Your task to perform on an android device: delete the emails in spam in the gmail app Image 0: 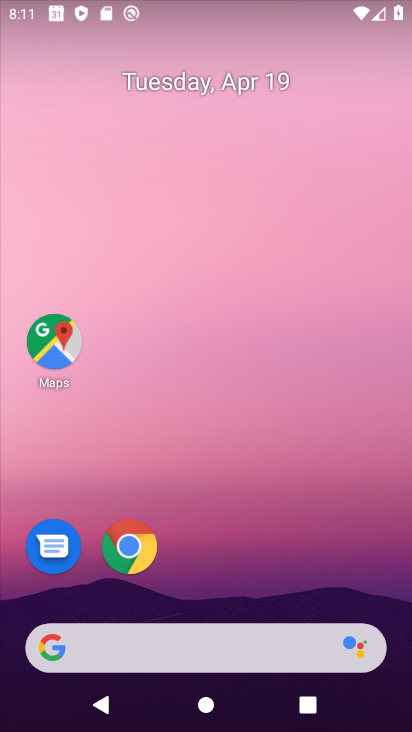
Step 0: drag from (81, 538) to (356, 153)
Your task to perform on an android device: delete the emails in spam in the gmail app Image 1: 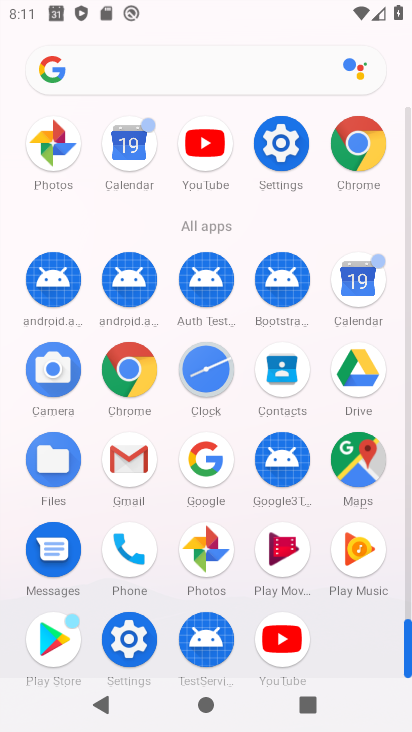
Step 1: click (134, 469)
Your task to perform on an android device: delete the emails in spam in the gmail app Image 2: 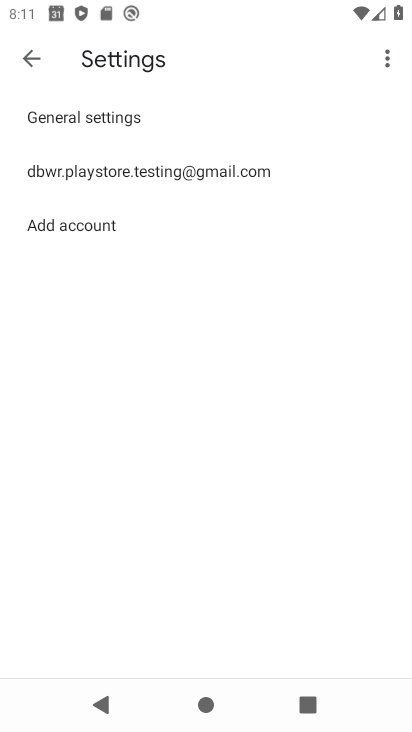
Step 2: click (37, 56)
Your task to perform on an android device: delete the emails in spam in the gmail app Image 3: 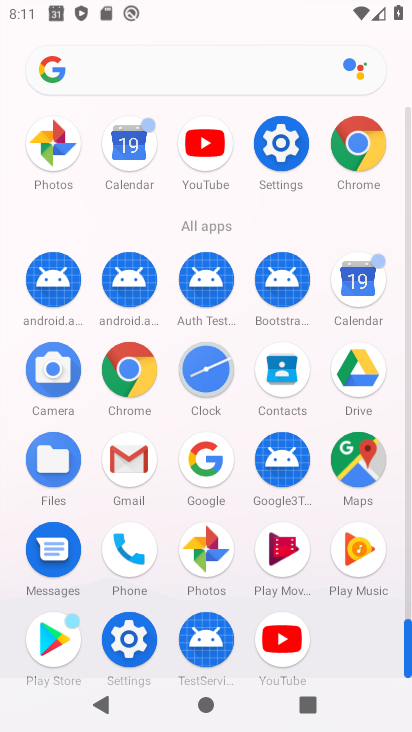
Step 3: click (124, 464)
Your task to perform on an android device: delete the emails in spam in the gmail app Image 4: 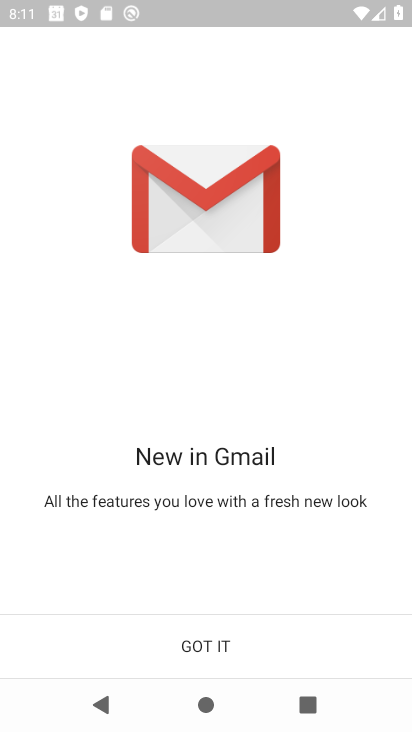
Step 4: click (243, 628)
Your task to perform on an android device: delete the emails in spam in the gmail app Image 5: 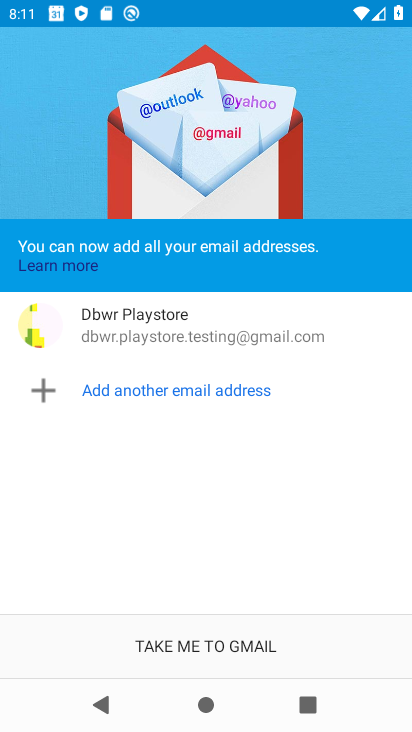
Step 5: click (236, 635)
Your task to perform on an android device: delete the emails in spam in the gmail app Image 6: 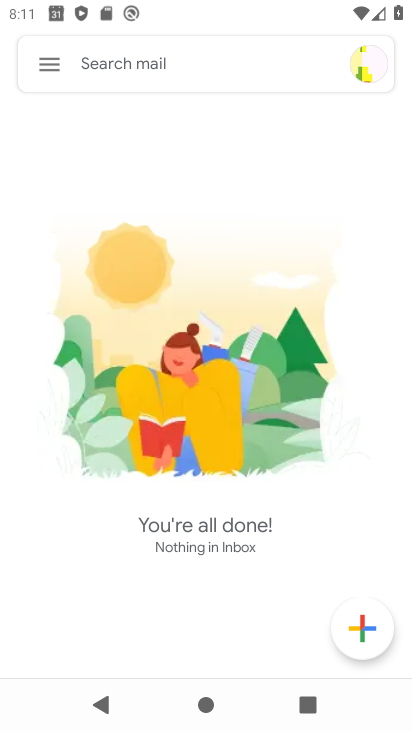
Step 6: click (64, 62)
Your task to perform on an android device: delete the emails in spam in the gmail app Image 7: 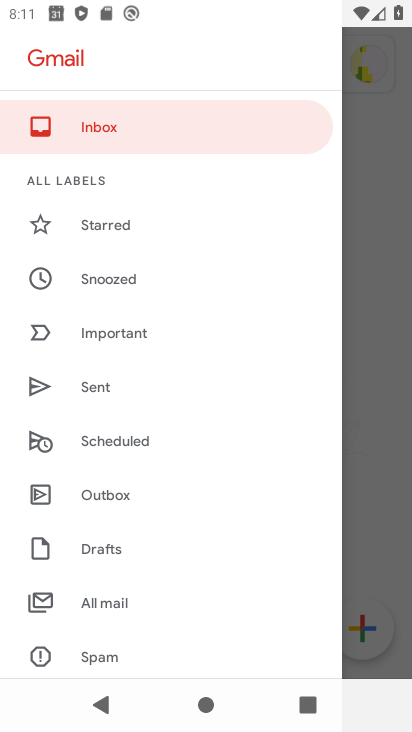
Step 7: drag from (123, 650) to (195, 307)
Your task to perform on an android device: delete the emails in spam in the gmail app Image 8: 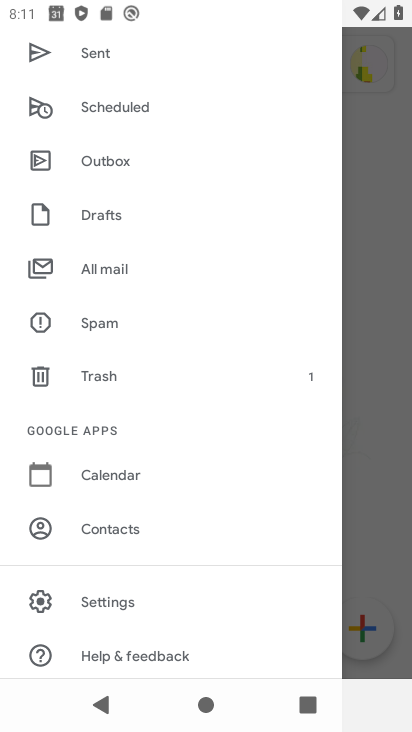
Step 8: click (111, 320)
Your task to perform on an android device: delete the emails in spam in the gmail app Image 9: 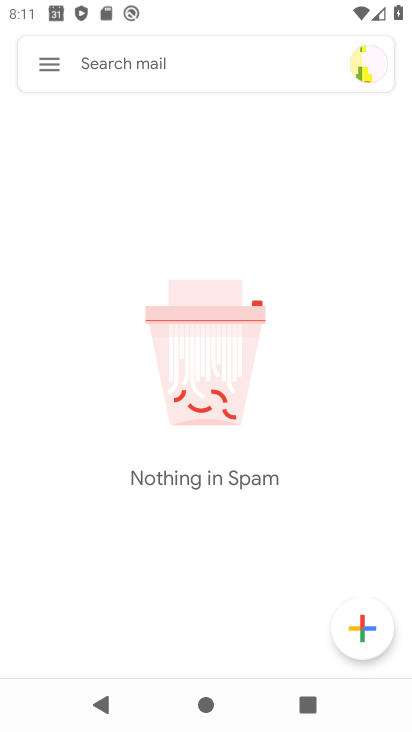
Step 9: task complete